Your task to perform on an android device: empty trash in google photos Image 0: 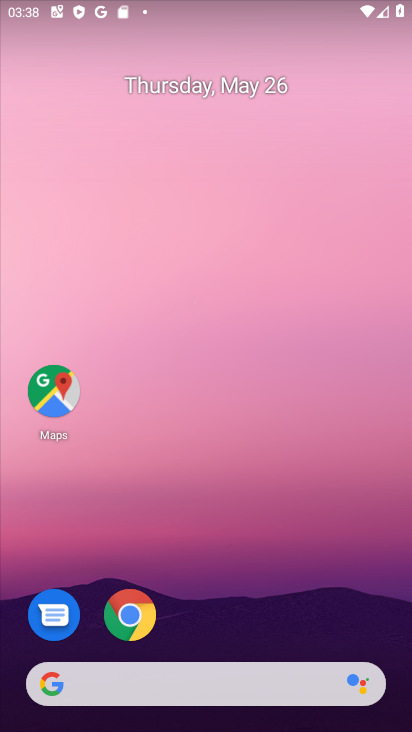
Step 0: drag from (241, 632) to (241, 155)
Your task to perform on an android device: empty trash in google photos Image 1: 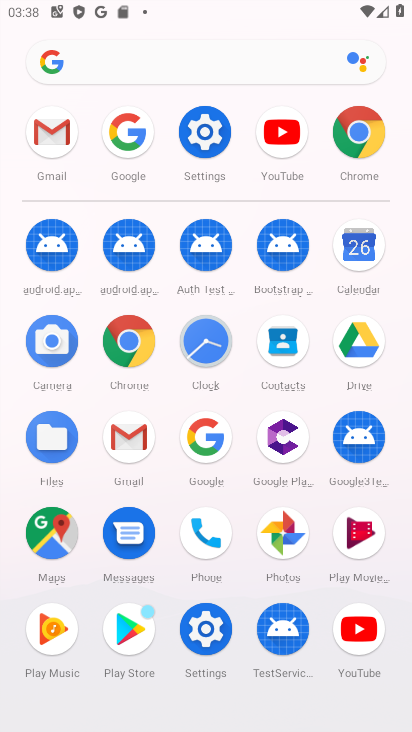
Step 1: click (296, 543)
Your task to perform on an android device: empty trash in google photos Image 2: 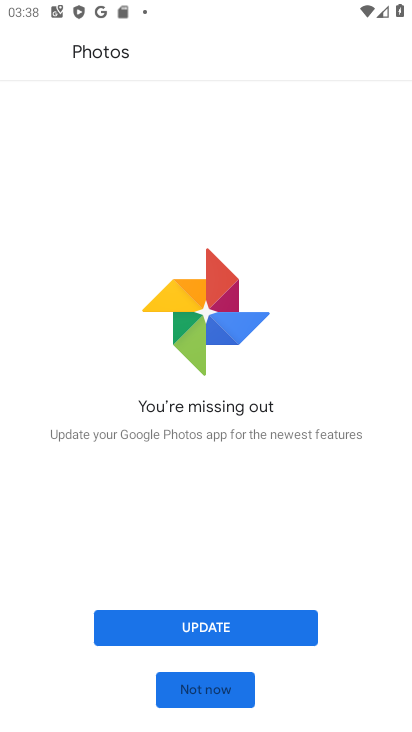
Step 2: click (215, 706)
Your task to perform on an android device: empty trash in google photos Image 3: 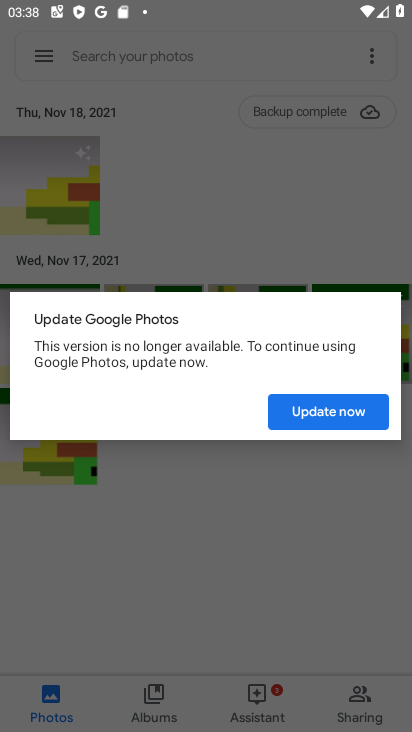
Step 3: click (325, 401)
Your task to perform on an android device: empty trash in google photos Image 4: 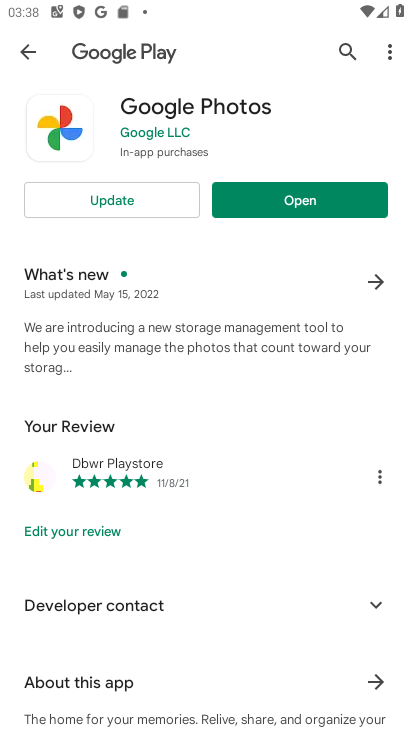
Step 4: click (146, 201)
Your task to perform on an android device: empty trash in google photos Image 5: 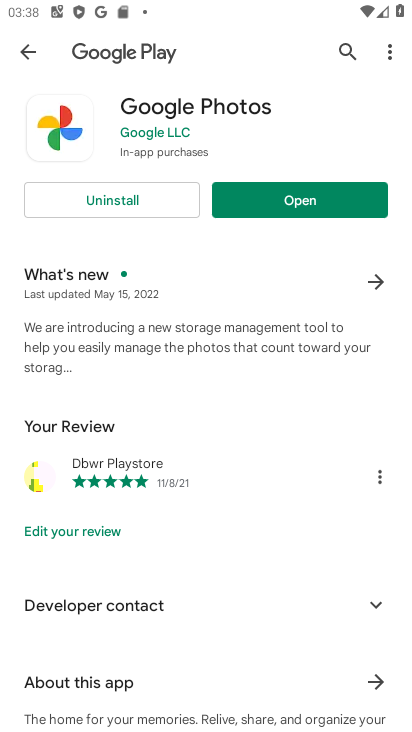
Step 5: click (290, 204)
Your task to perform on an android device: empty trash in google photos Image 6: 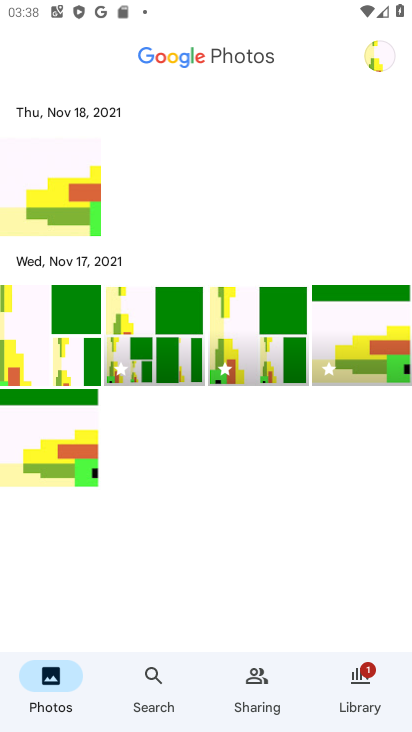
Step 6: click (369, 702)
Your task to perform on an android device: empty trash in google photos Image 7: 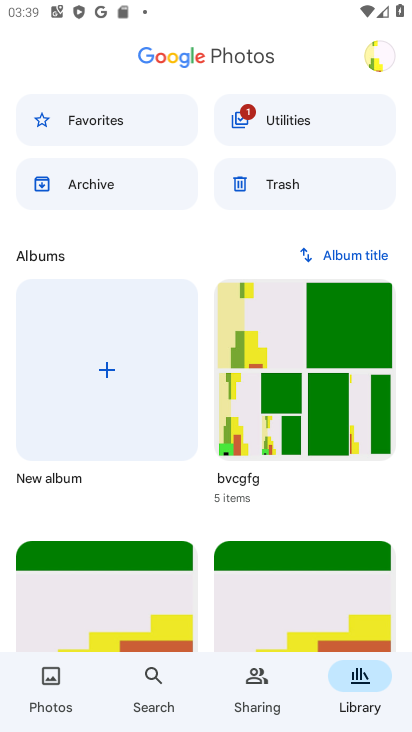
Step 7: click (268, 178)
Your task to perform on an android device: empty trash in google photos Image 8: 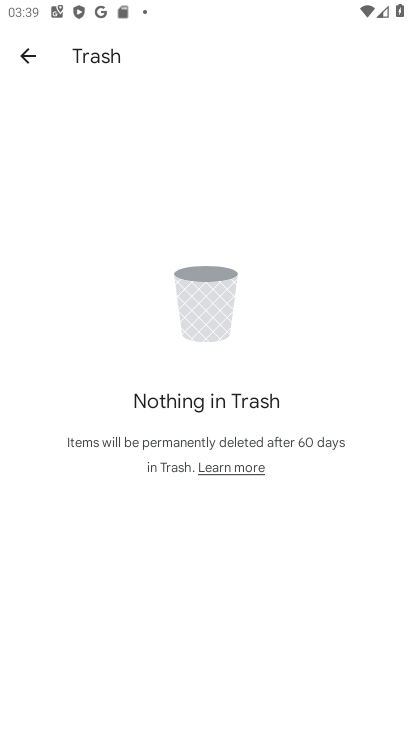
Step 8: task complete